Your task to perform on an android device: change your default location settings in chrome Image 0: 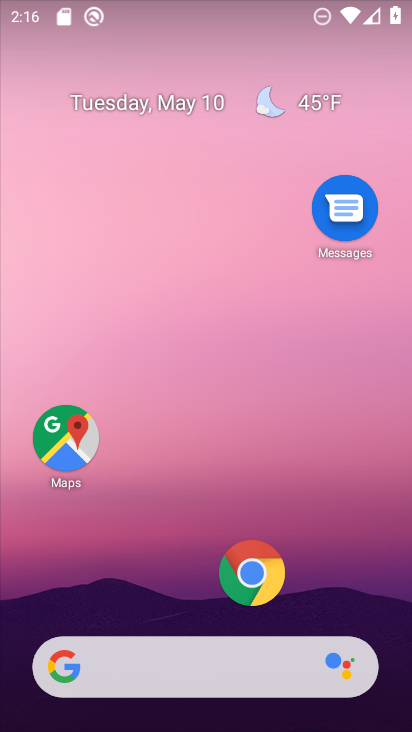
Step 0: drag from (170, 606) to (181, 437)
Your task to perform on an android device: change your default location settings in chrome Image 1: 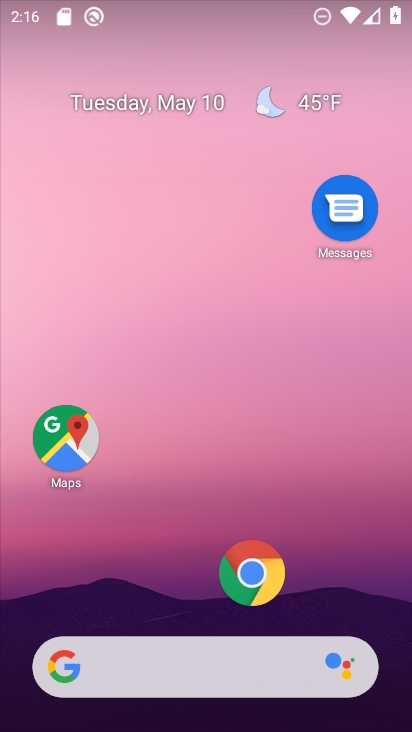
Step 1: drag from (183, 626) to (202, 374)
Your task to perform on an android device: change your default location settings in chrome Image 2: 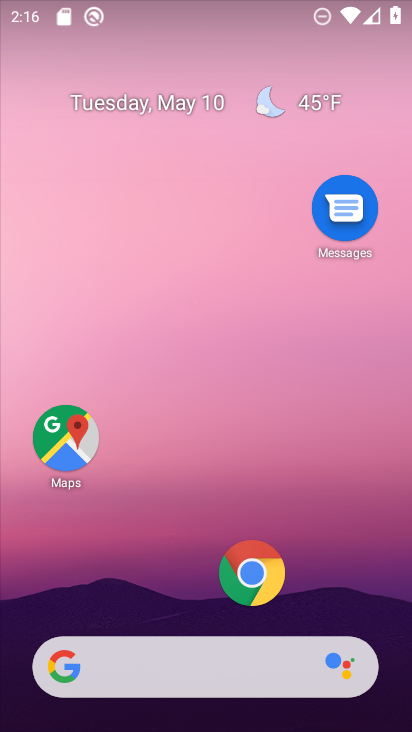
Step 2: drag from (206, 591) to (277, 108)
Your task to perform on an android device: change your default location settings in chrome Image 3: 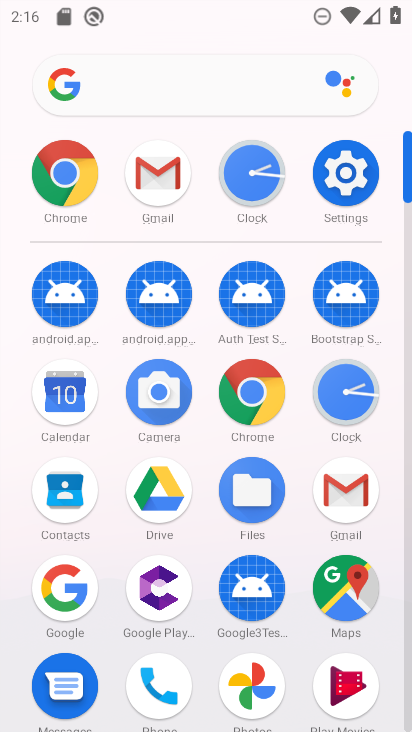
Step 3: drag from (190, 647) to (241, 303)
Your task to perform on an android device: change your default location settings in chrome Image 4: 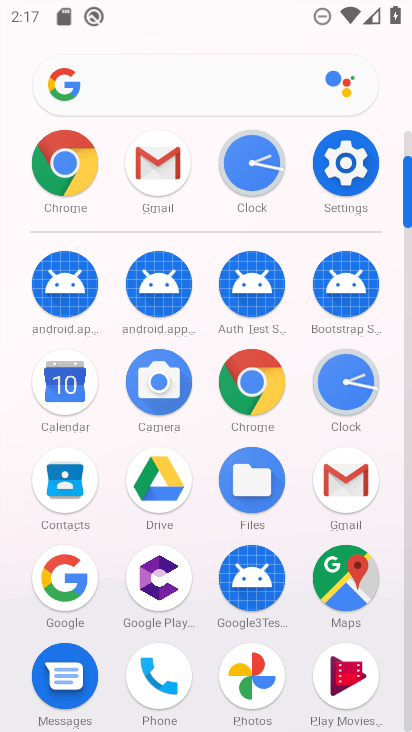
Step 4: click (243, 212)
Your task to perform on an android device: change your default location settings in chrome Image 5: 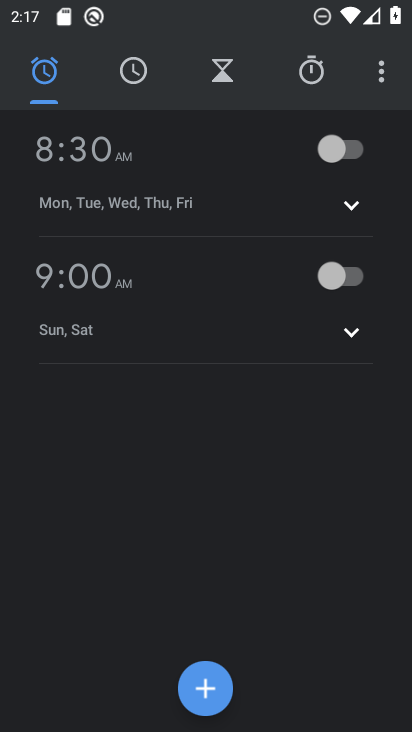
Step 5: drag from (268, 585) to (235, 282)
Your task to perform on an android device: change your default location settings in chrome Image 6: 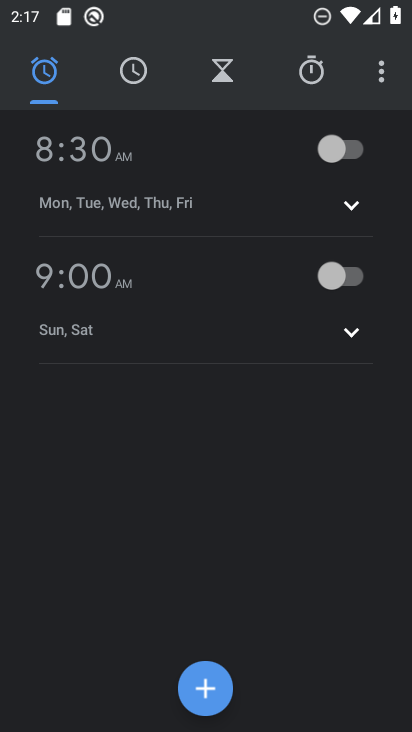
Step 6: click (206, 80)
Your task to perform on an android device: change your default location settings in chrome Image 7: 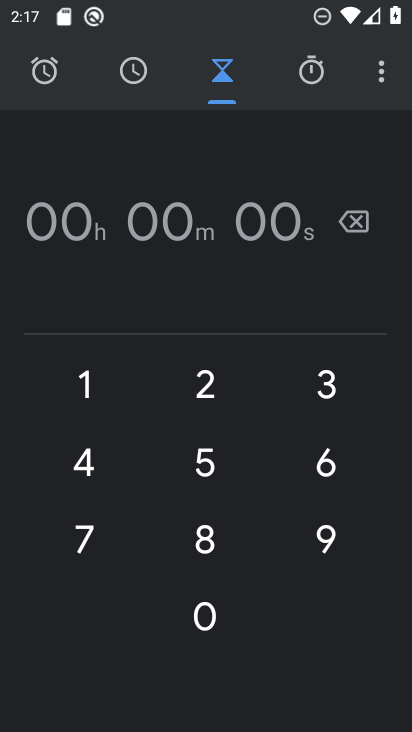
Step 7: click (382, 64)
Your task to perform on an android device: change your default location settings in chrome Image 8: 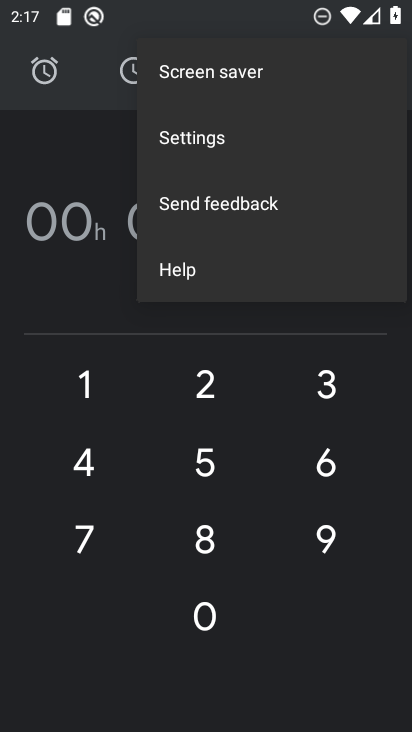
Step 8: click (45, 143)
Your task to perform on an android device: change your default location settings in chrome Image 9: 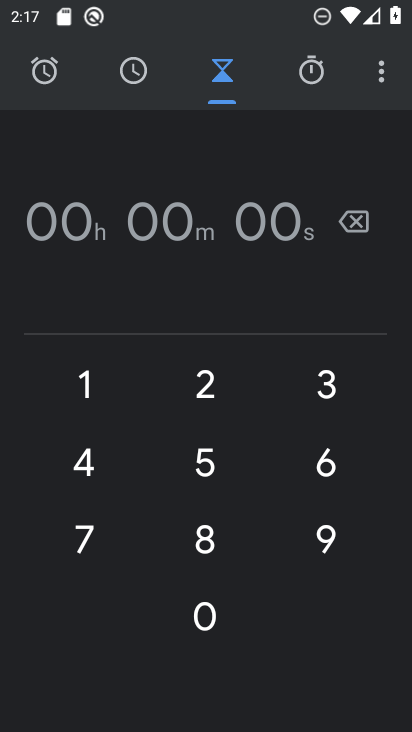
Step 9: press home button
Your task to perform on an android device: change your default location settings in chrome Image 10: 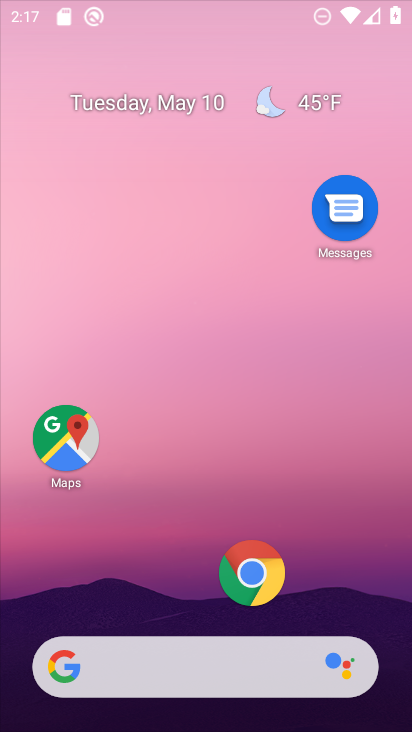
Step 10: drag from (239, 629) to (244, 222)
Your task to perform on an android device: change your default location settings in chrome Image 11: 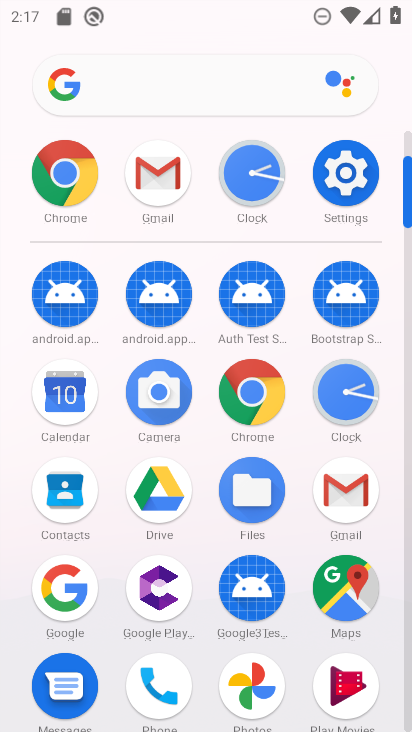
Step 11: click (249, 391)
Your task to perform on an android device: change your default location settings in chrome Image 12: 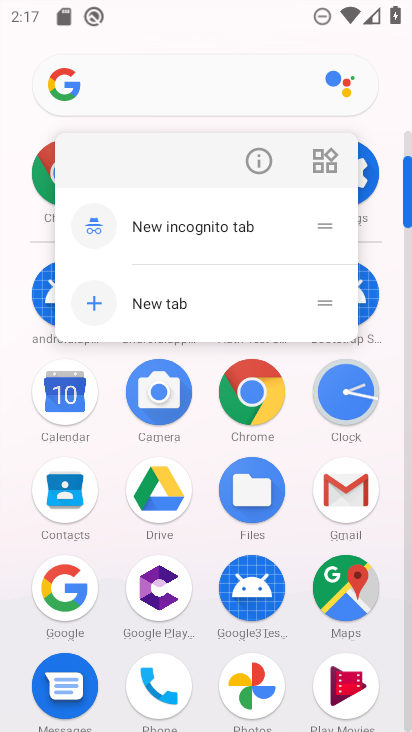
Step 12: click (252, 174)
Your task to perform on an android device: change your default location settings in chrome Image 13: 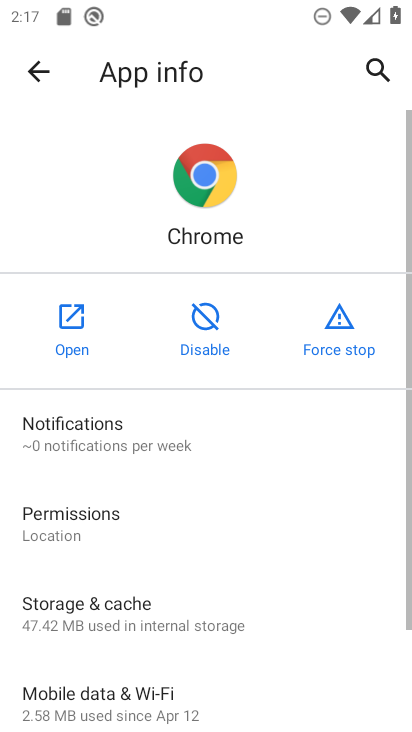
Step 13: click (71, 317)
Your task to perform on an android device: change your default location settings in chrome Image 14: 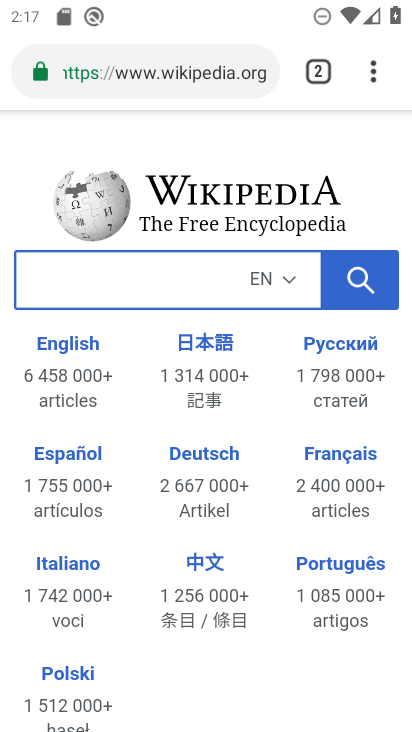
Step 14: drag from (377, 79) to (158, 557)
Your task to perform on an android device: change your default location settings in chrome Image 15: 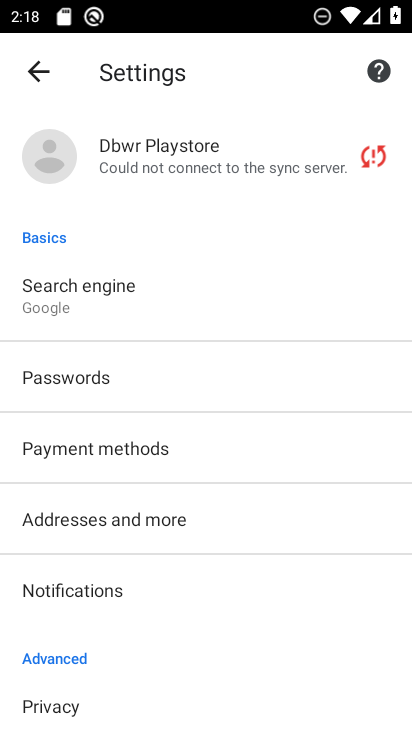
Step 15: drag from (134, 651) to (218, 315)
Your task to perform on an android device: change your default location settings in chrome Image 16: 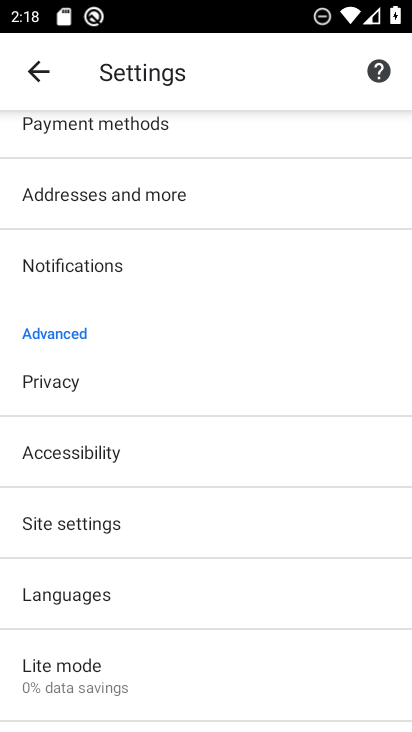
Step 16: click (127, 525)
Your task to perform on an android device: change your default location settings in chrome Image 17: 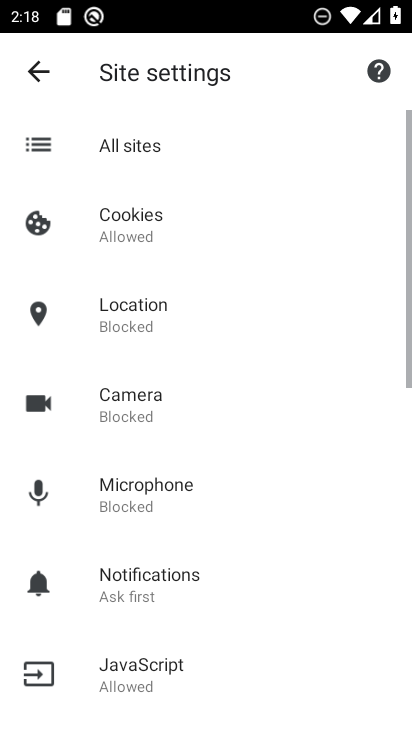
Step 17: drag from (191, 529) to (211, 310)
Your task to perform on an android device: change your default location settings in chrome Image 18: 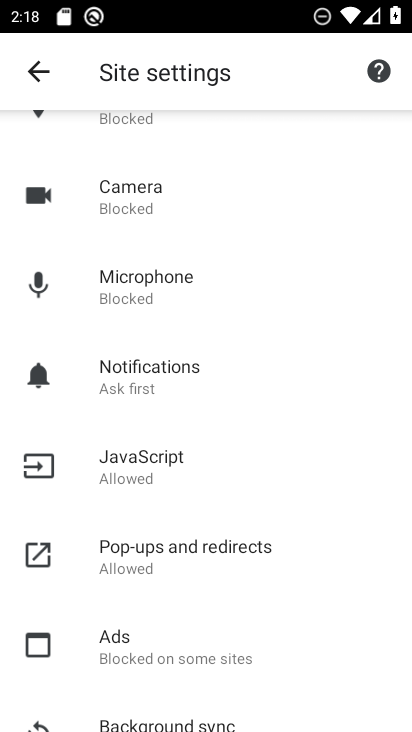
Step 18: drag from (167, 210) to (252, 572)
Your task to perform on an android device: change your default location settings in chrome Image 19: 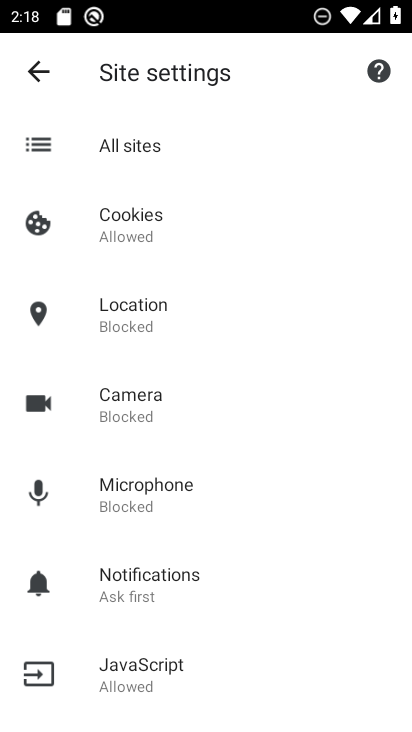
Step 19: drag from (170, 323) to (325, 666)
Your task to perform on an android device: change your default location settings in chrome Image 20: 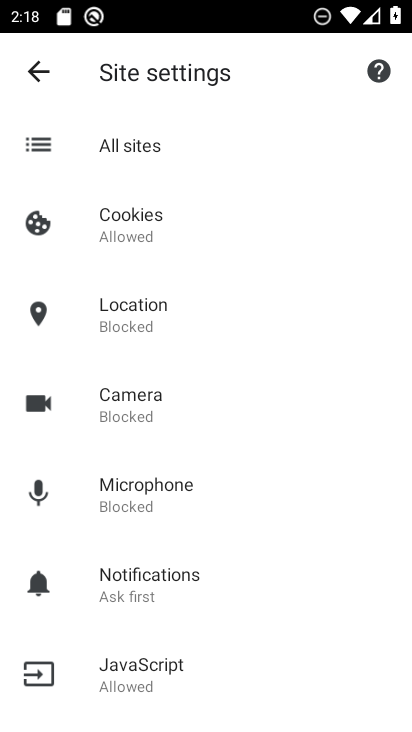
Step 20: drag from (164, 618) to (243, 189)
Your task to perform on an android device: change your default location settings in chrome Image 21: 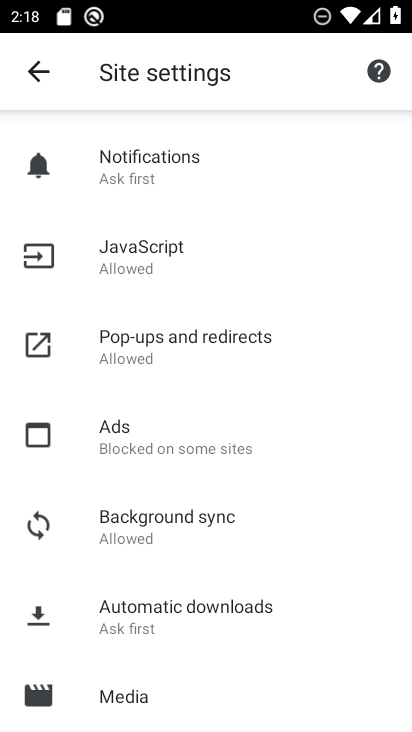
Step 21: drag from (173, 629) to (220, 316)
Your task to perform on an android device: change your default location settings in chrome Image 22: 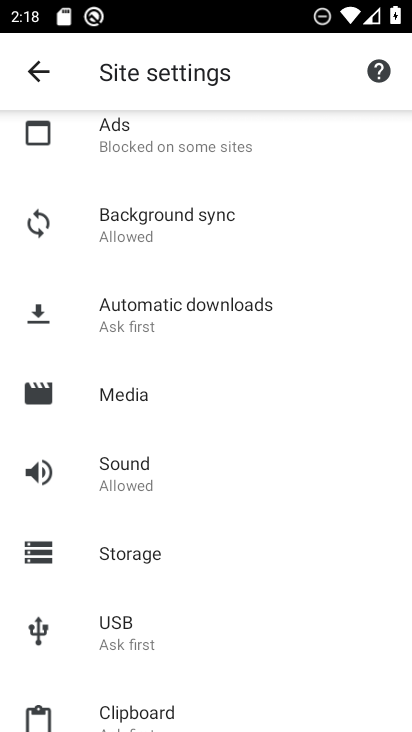
Step 22: drag from (168, 220) to (212, 615)
Your task to perform on an android device: change your default location settings in chrome Image 23: 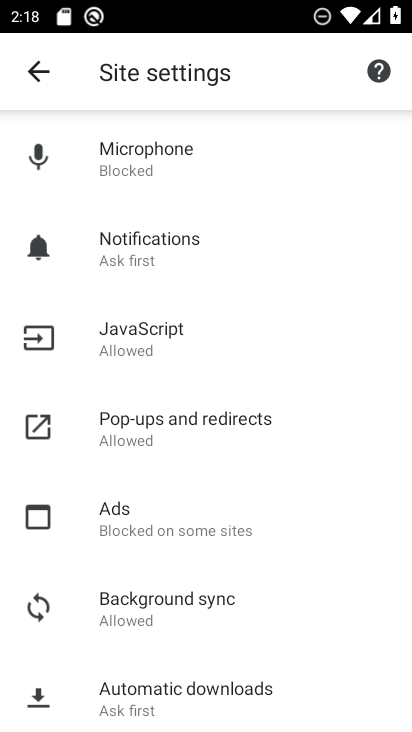
Step 23: drag from (169, 265) to (262, 715)
Your task to perform on an android device: change your default location settings in chrome Image 24: 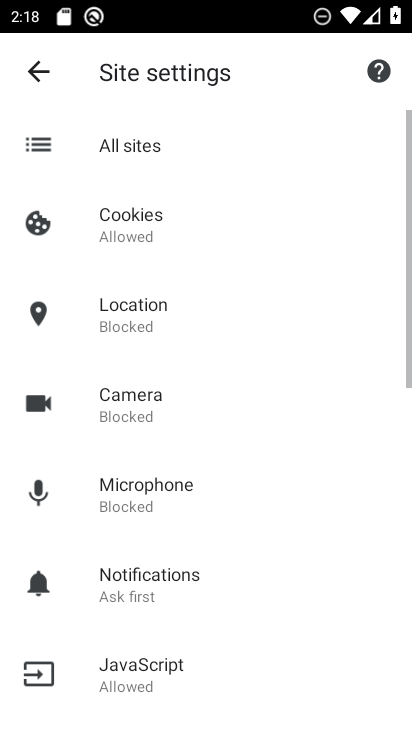
Step 24: click (140, 329)
Your task to perform on an android device: change your default location settings in chrome Image 25: 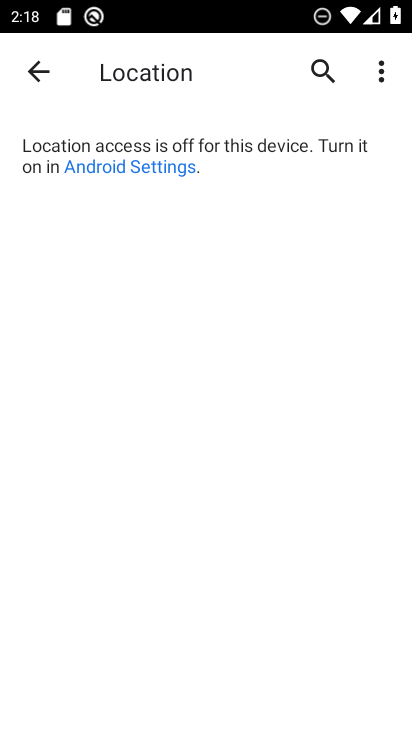
Step 25: drag from (181, 624) to (227, 290)
Your task to perform on an android device: change your default location settings in chrome Image 26: 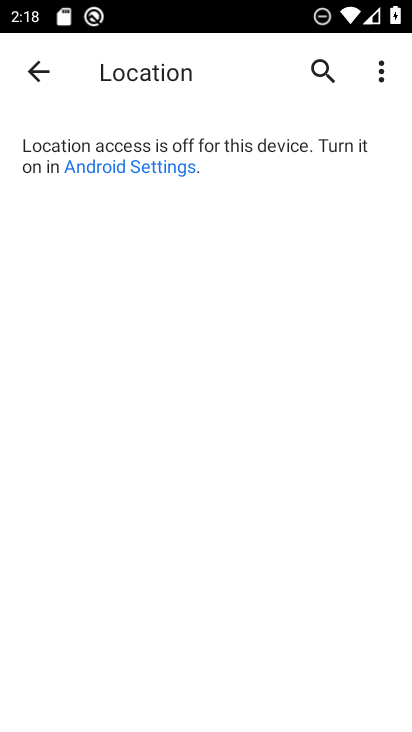
Step 26: click (292, 435)
Your task to perform on an android device: change your default location settings in chrome Image 27: 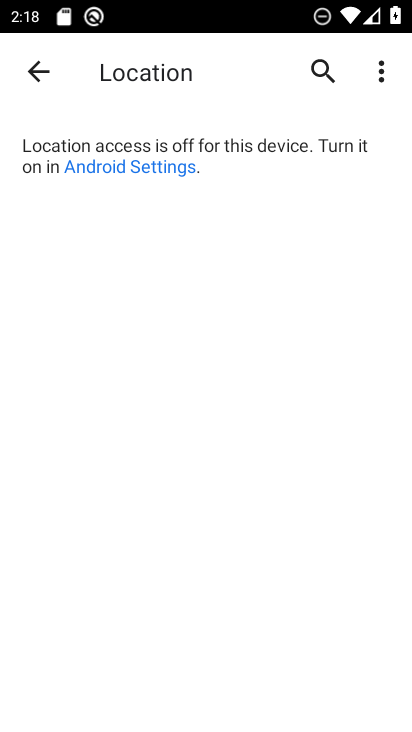
Step 27: task complete